Your task to perform on an android device: What's the weather going to be tomorrow? Image 0: 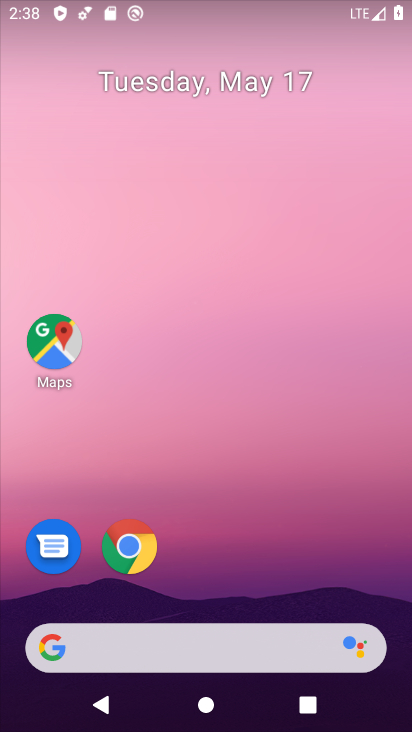
Step 0: click (117, 548)
Your task to perform on an android device: What's the weather going to be tomorrow? Image 1: 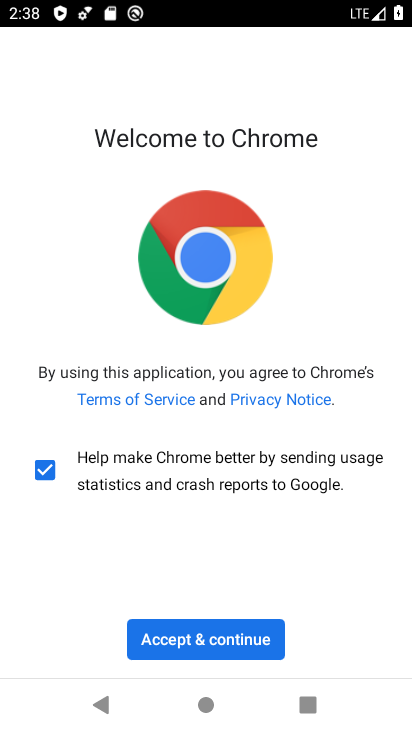
Step 1: click (226, 645)
Your task to perform on an android device: What's the weather going to be tomorrow? Image 2: 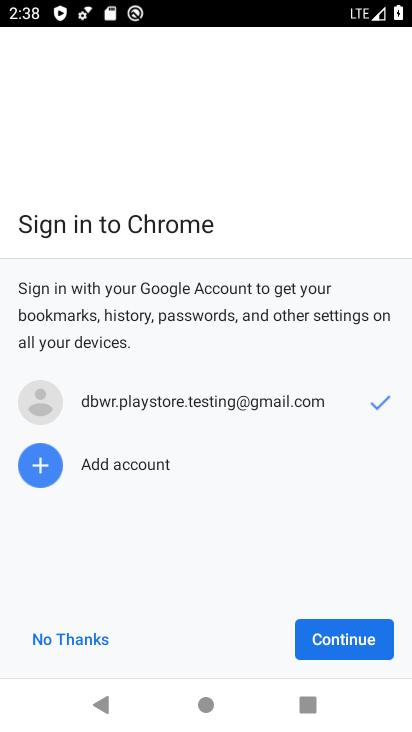
Step 2: click (345, 643)
Your task to perform on an android device: What's the weather going to be tomorrow? Image 3: 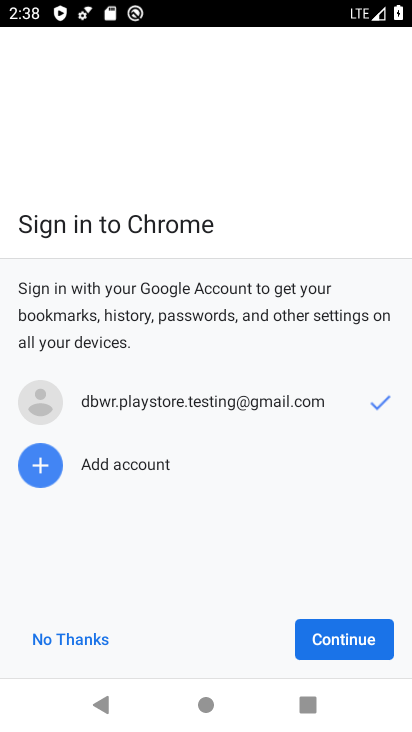
Step 3: click (345, 641)
Your task to perform on an android device: What's the weather going to be tomorrow? Image 4: 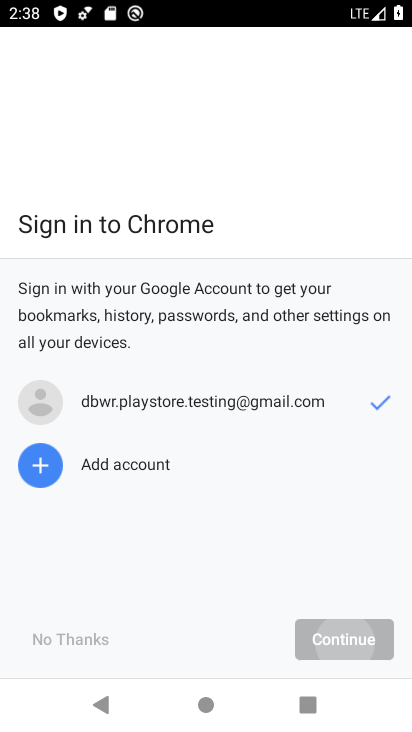
Step 4: click (345, 641)
Your task to perform on an android device: What's the weather going to be tomorrow? Image 5: 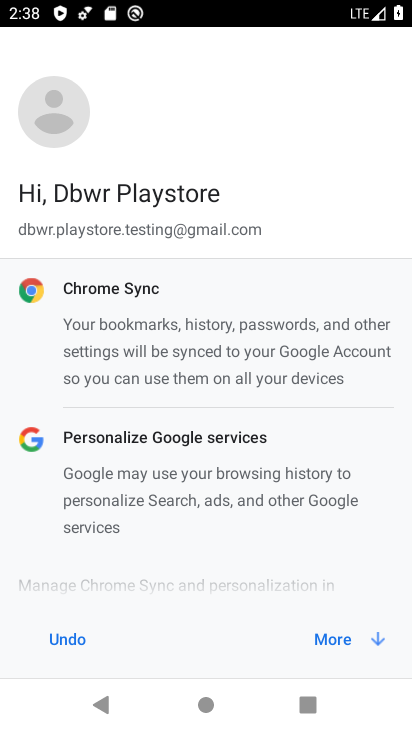
Step 5: click (345, 641)
Your task to perform on an android device: What's the weather going to be tomorrow? Image 6: 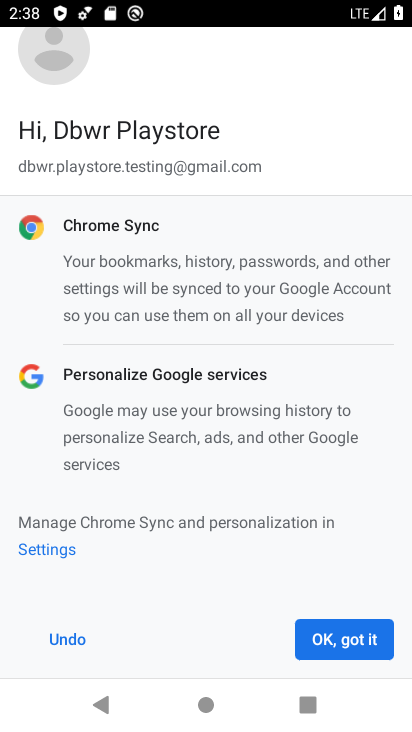
Step 6: click (345, 641)
Your task to perform on an android device: What's the weather going to be tomorrow? Image 7: 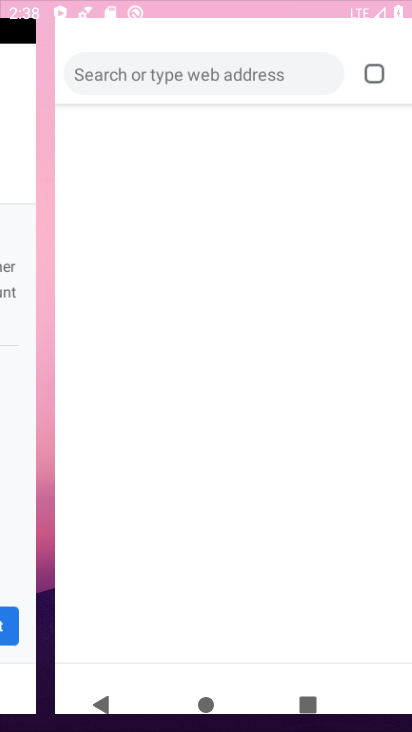
Step 7: click (345, 641)
Your task to perform on an android device: What's the weather going to be tomorrow? Image 8: 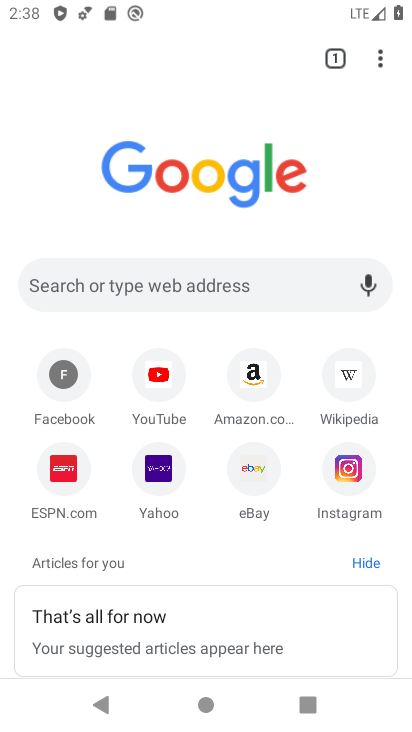
Step 8: click (218, 294)
Your task to perform on an android device: What's the weather going to be tomorrow? Image 9: 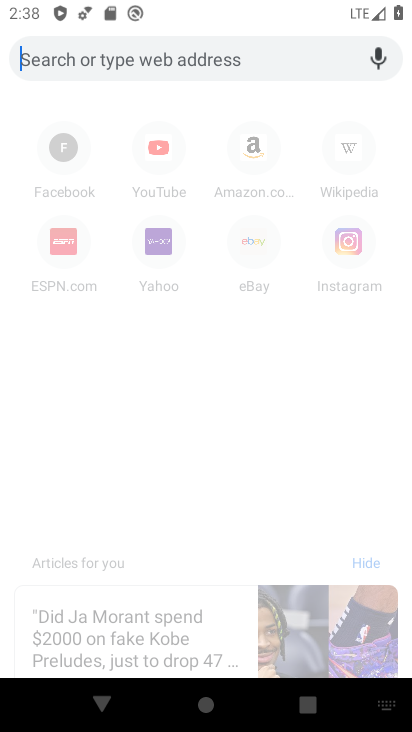
Step 9: type " What's the weather going to be tomorrow?"
Your task to perform on an android device: What's the weather going to be tomorrow? Image 10: 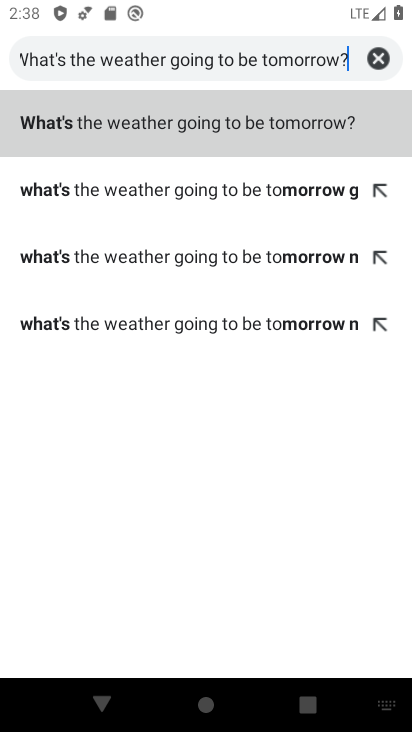
Step 10: click (150, 112)
Your task to perform on an android device: What's the weather going to be tomorrow? Image 11: 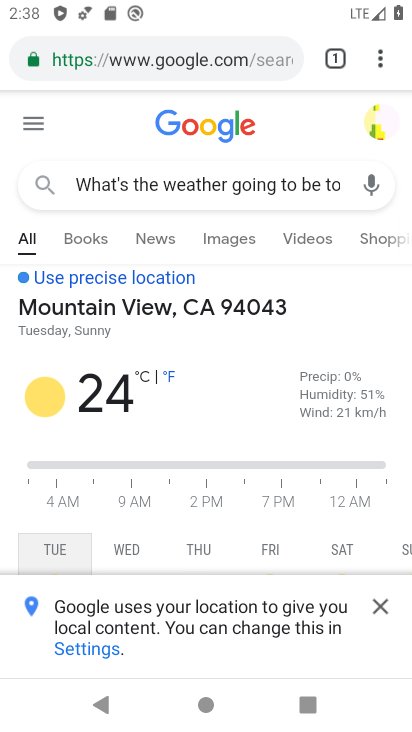
Step 11: task complete